Your task to perform on an android device: toggle sleep mode Image 0: 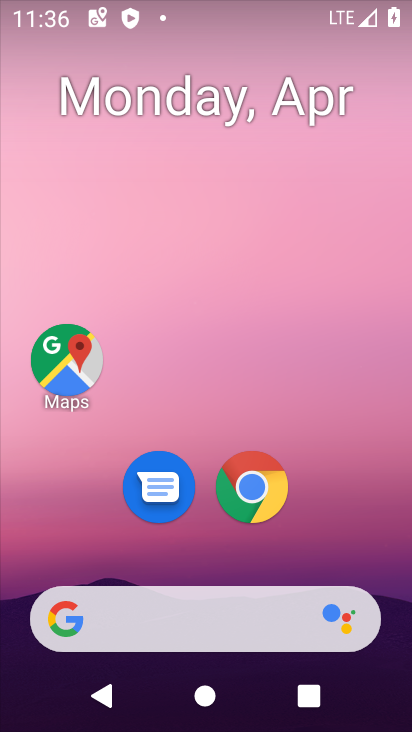
Step 0: drag from (385, 530) to (287, 48)
Your task to perform on an android device: toggle sleep mode Image 1: 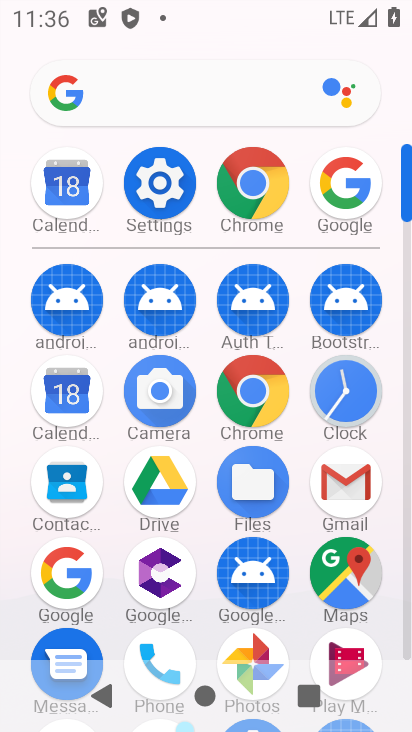
Step 1: click (158, 218)
Your task to perform on an android device: toggle sleep mode Image 2: 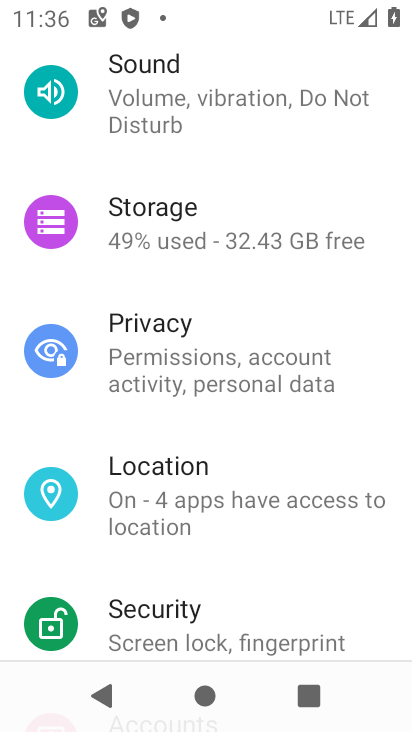
Step 2: drag from (241, 162) to (284, 731)
Your task to perform on an android device: toggle sleep mode Image 3: 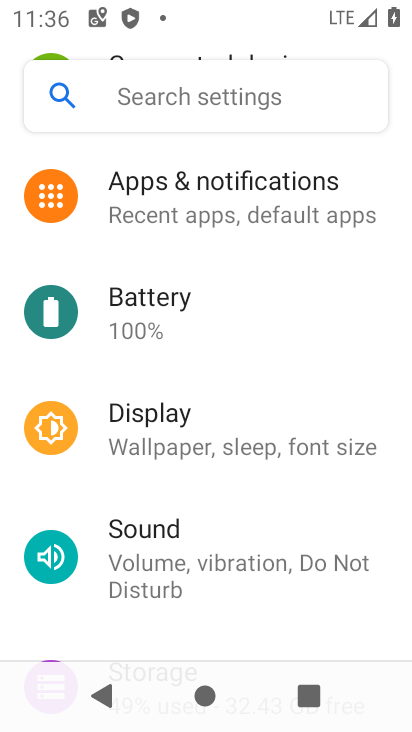
Step 3: click (276, 456)
Your task to perform on an android device: toggle sleep mode Image 4: 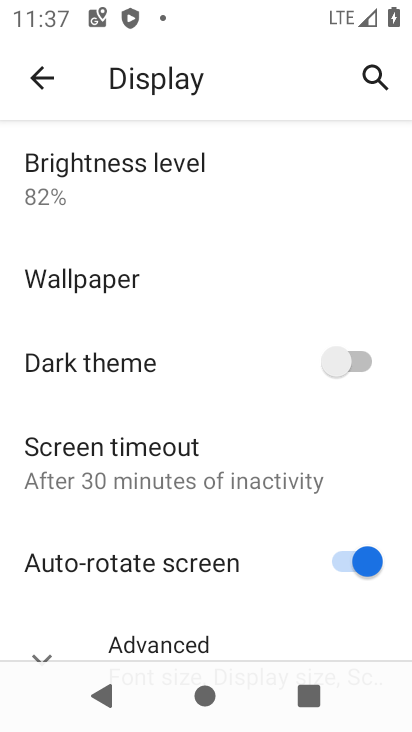
Step 4: task complete